Your task to perform on an android device: Show me popular videos on Youtube Image 0: 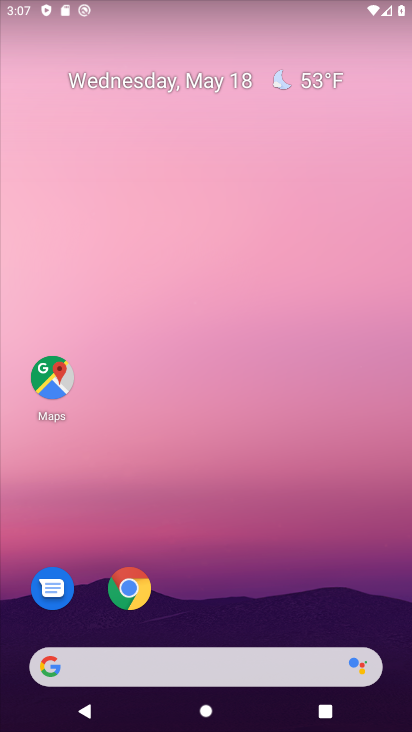
Step 0: drag from (190, 581) to (163, 50)
Your task to perform on an android device: Show me popular videos on Youtube Image 1: 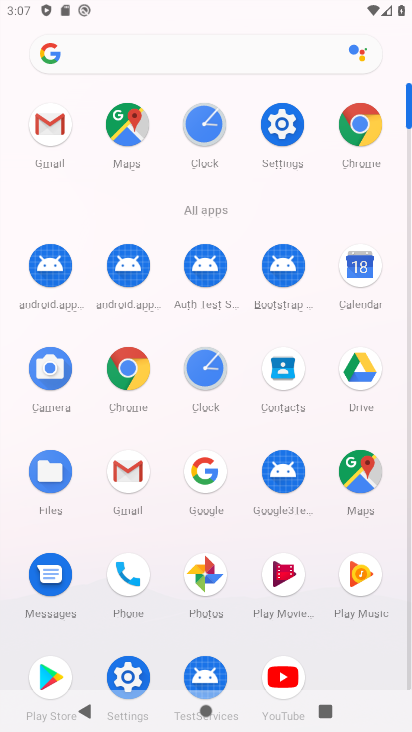
Step 1: click (290, 672)
Your task to perform on an android device: Show me popular videos on Youtube Image 2: 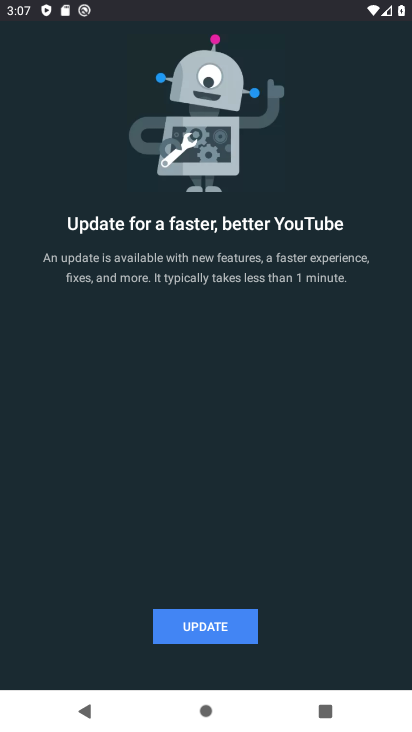
Step 2: click (290, 672)
Your task to perform on an android device: Show me popular videos on Youtube Image 3: 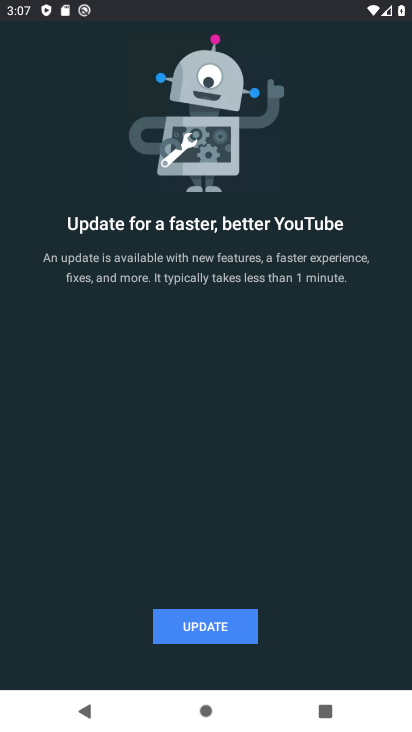
Step 3: click (218, 632)
Your task to perform on an android device: Show me popular videos on Youtube Image 4: 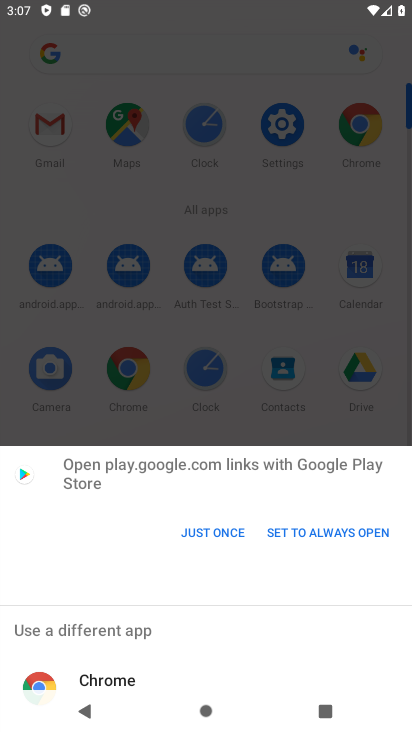
Step 4: click (208, 535)
Your task to perform on an android device: Show me popular videos on Youtube Image 5: 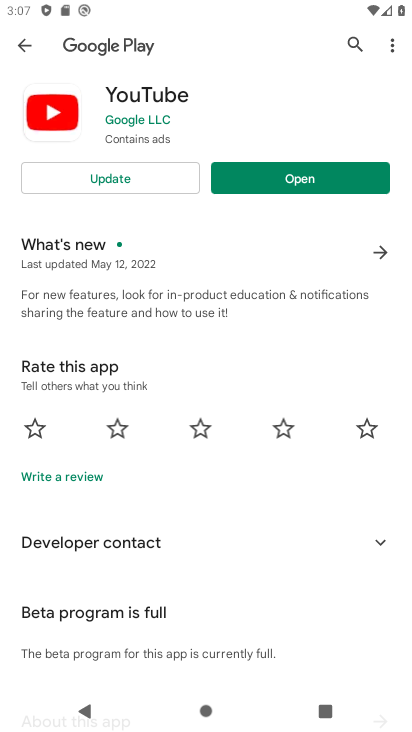
Step 5: click (138, 187)
Your task to perform on an android device: Show me popular videos on Youtube Image 6: 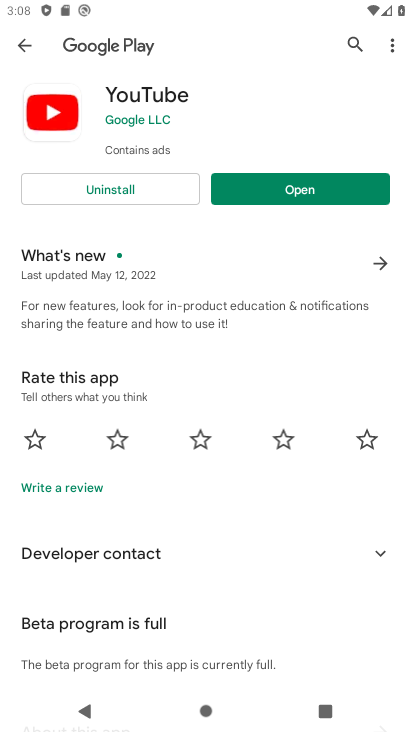
Step 6: click (347, 173)
Your task to perform on an android device: Show me popular videos on Youtube Image 7: 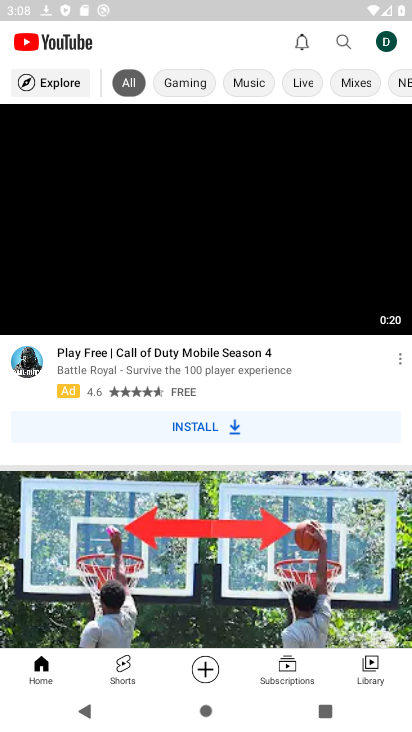
Step 7: click (351, 43)
Your task to perform on an android device: Show me popular videos on Youtube Image 8: 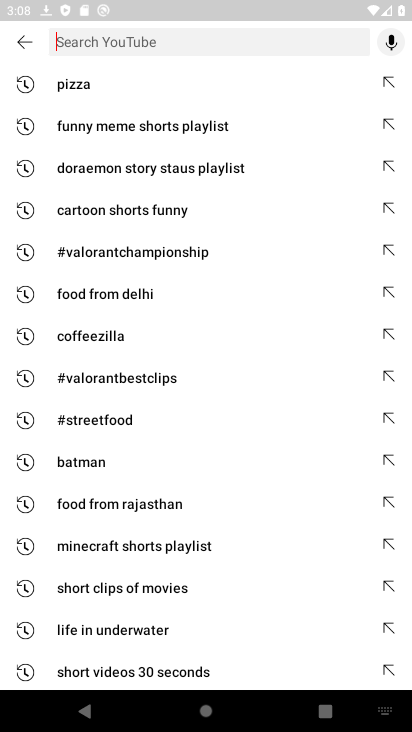
Step 8: type "popular videos"
Your task to perform on an android device: Show me popular videos on Youtube Image 9: 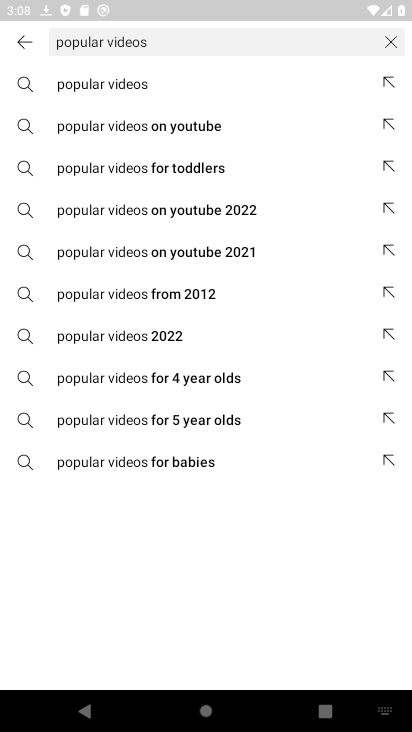
Step 9: click (221, 74)
Your task to perform on an android device: Show me popular videos on Youtube Image 10: 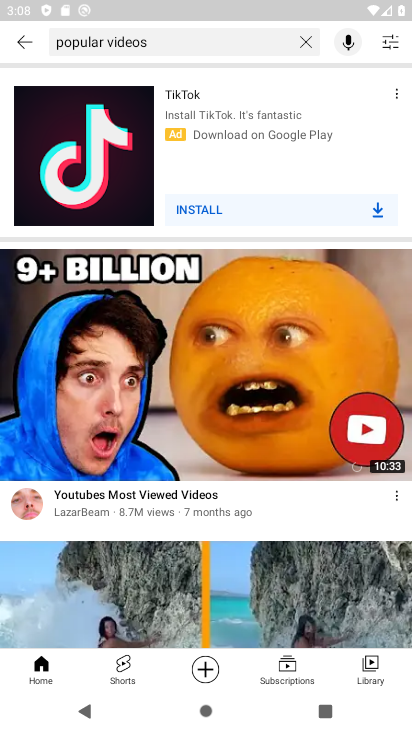
Step 10: task complete